Your task to perform on an android device: check battery use Image 0: 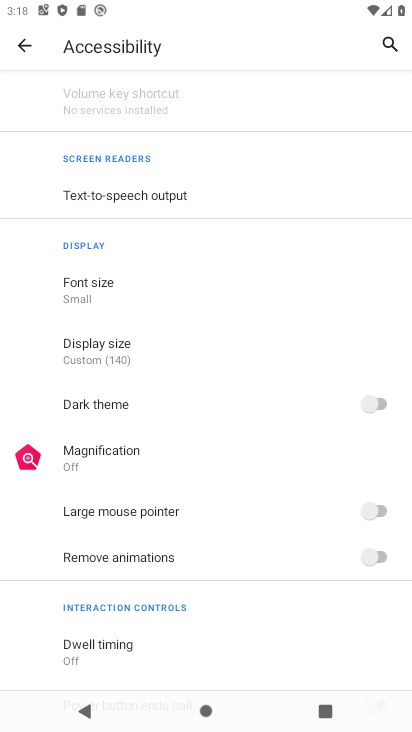
Step 0: click (9, 36)
Your task to perform on an android device: check battery use Image 1: 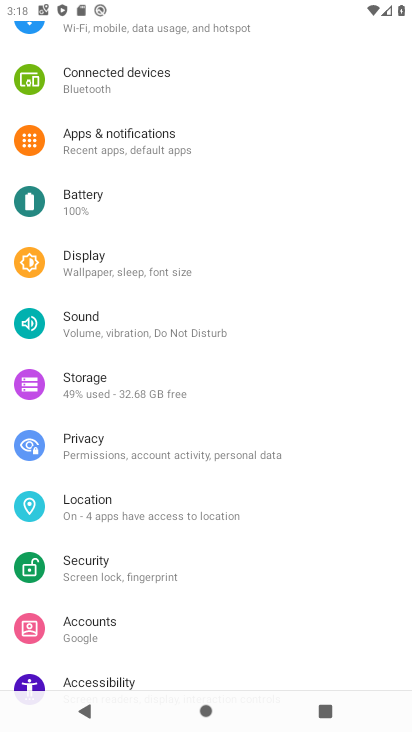
Step 1: click (102, 199)
Your task to perform on an android device: check battery use Image 2: 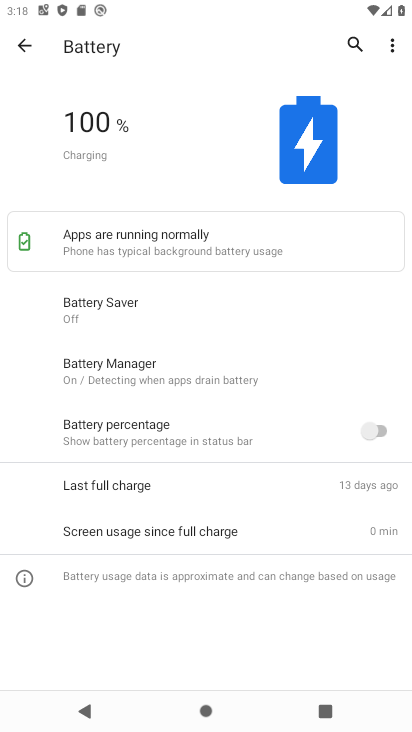
Step 2: click (391, 48)
Your task to perform on an android device: check battery use Image 3: 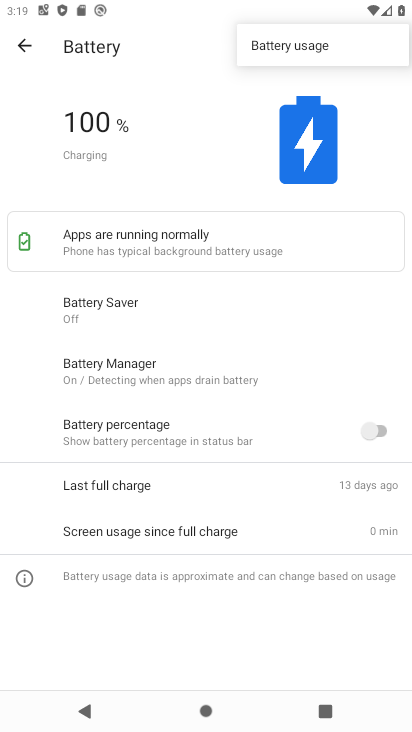
Step 3: click (345, 48)
Your task to perform on an android device: check battery use Image 4: 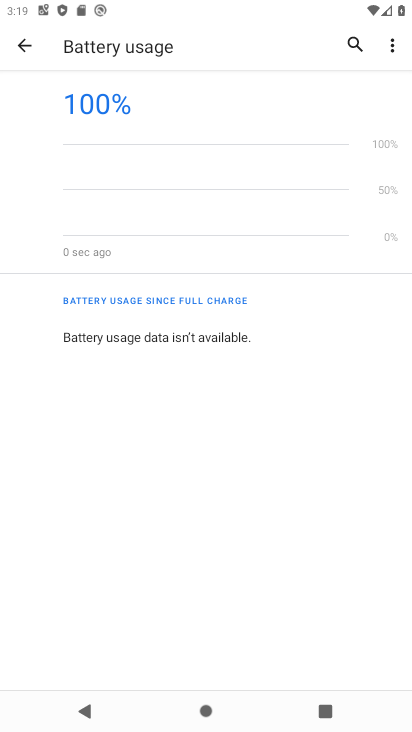
Step 4: task complete